Your task to perform on an android device: add a contact Image 0: 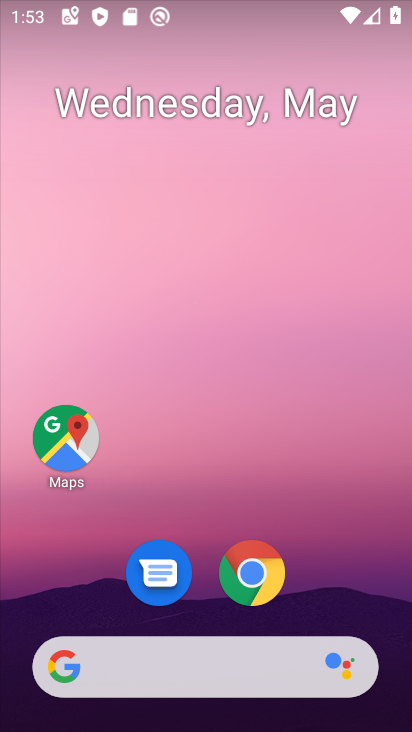
Step 0: drag from (330, 595) to (354, 35)
Your task to perform on an android device: add a contact Image 1: 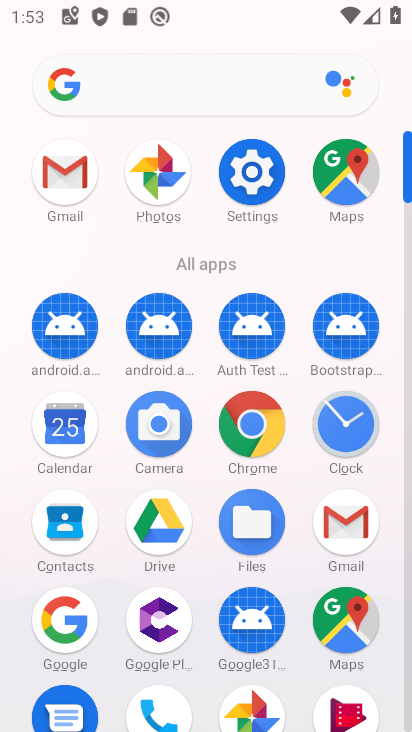
Step 1: click (62, 518)
Your task to perform on an android device: add a contact Image 2: 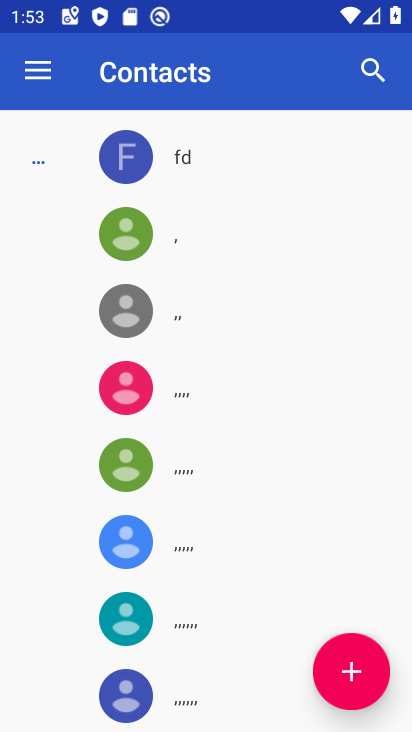
Step 2: click (349, 679)
Your task to perform on an android device: add a contact Image 3: 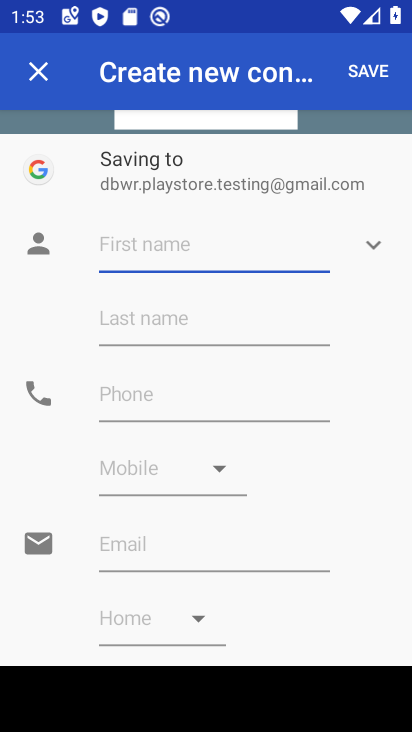
Step 3: type "addddddfffggh"
Your task to perform on an android device: add a contact Image 4: 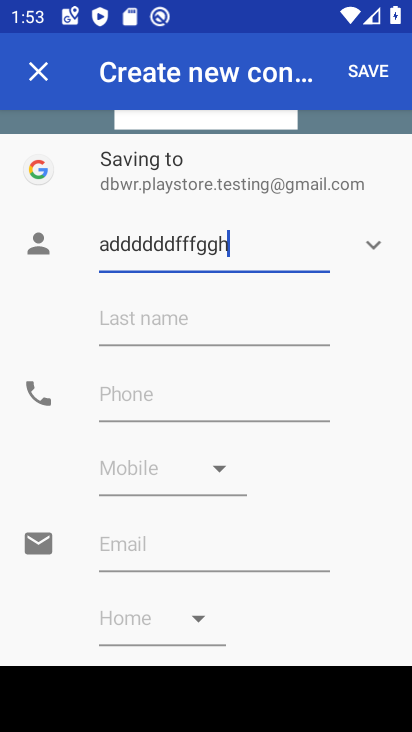
Step 4: click (147, 387)
Your task to perform on an android device: add a contact Image 5: 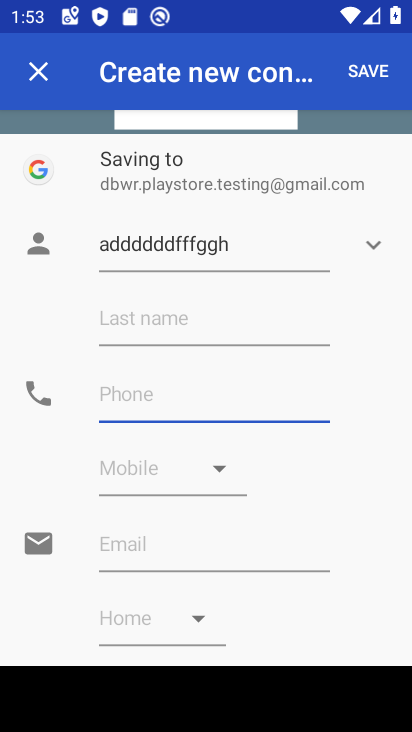
Step 5: type "9807654321"
Your task to perform on an android device: add a contact Image 6: 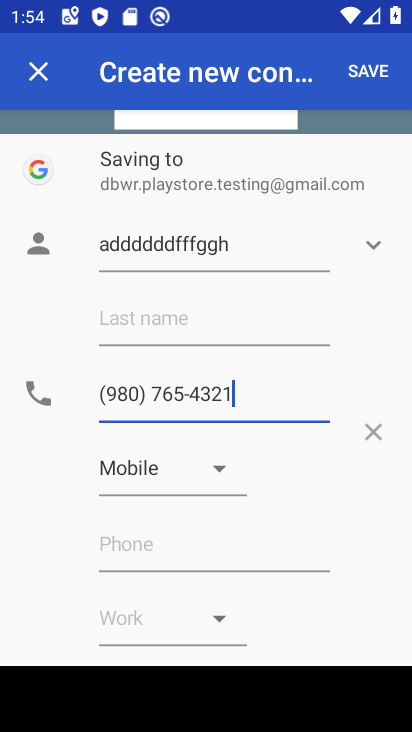
Step 6: click (371, 57)
Your task to perform on an android device: add a contact Image 7: 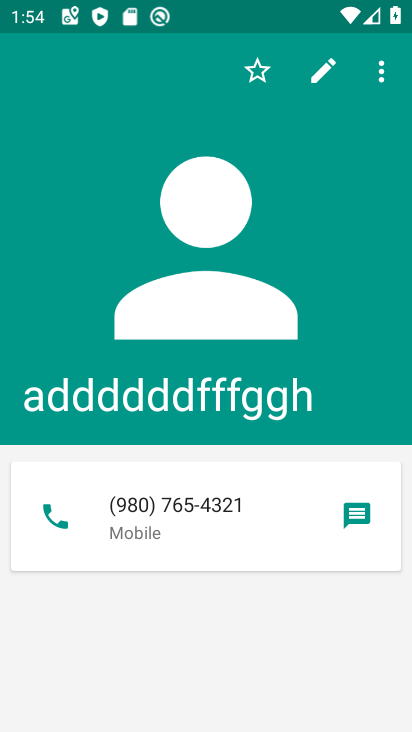
Step 7: task complete